Your task to perform on an android device: Open Wikipedia Image 0: 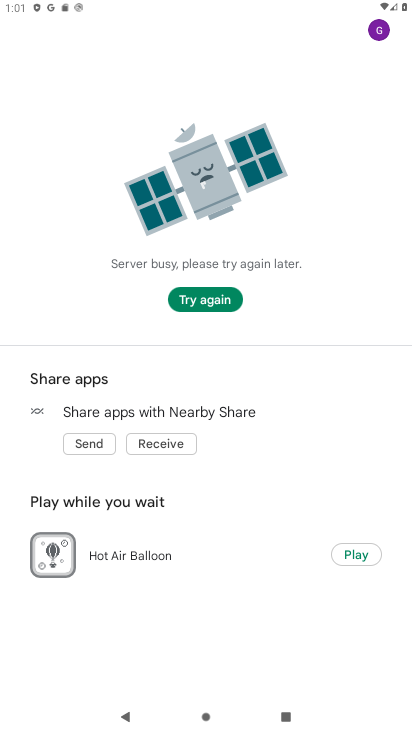
Step 0: press home button
Your task to perform on an android device: Open Wikipedia Image 1: 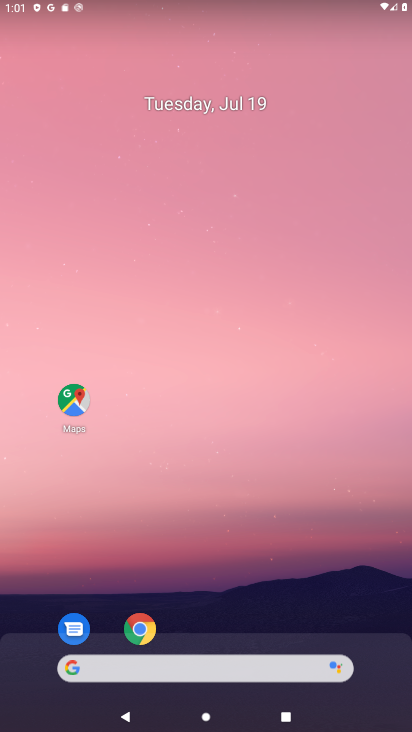
Step 1: click (151, 621)
Your task to perform on an android device: Open Wikipedia Image 2: 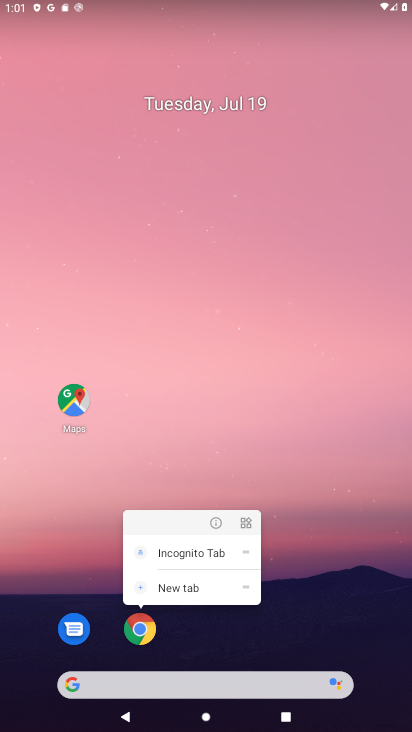
Step 2: click (147, 633)
Your task to perform on an android device: Open Wikipedia Image 3: 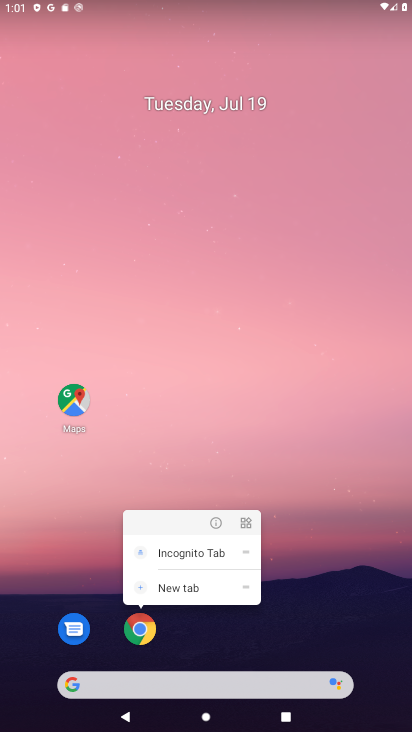
Step 3: click (137, 638)
Your task to perform on an android device: Open Wikipedia Image 4: 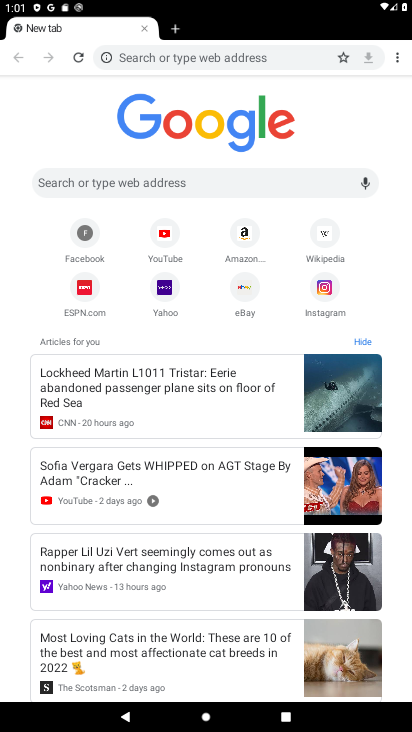
Step 4: click (322, 243)
Your task to perform on an android device: Open Wikipedia Image 5: 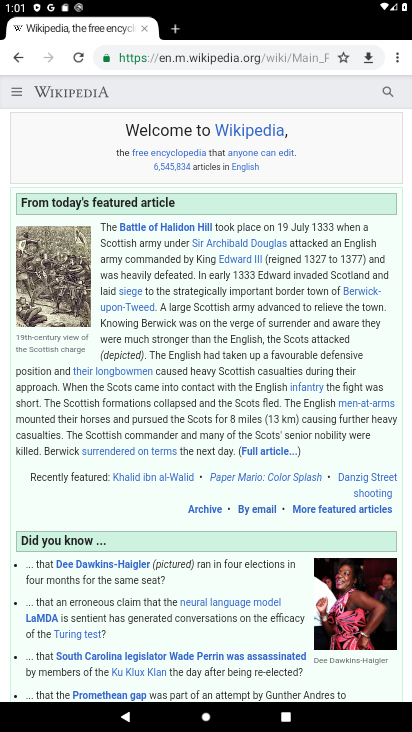
Step 5: task complete